Your task to perform on an android device: Open the stopwatch Image 0: 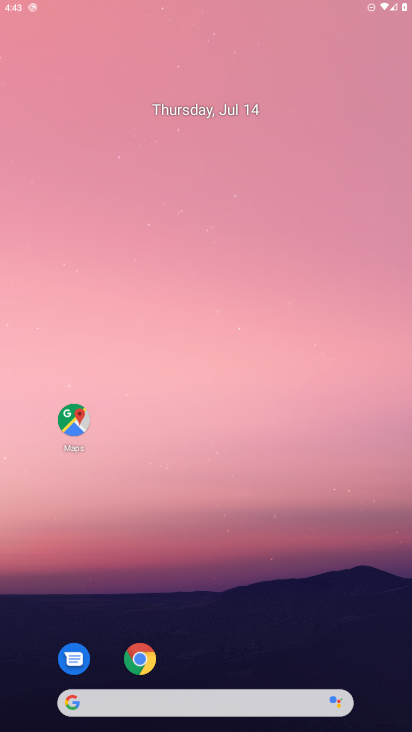
Step 0: press home button
Your task to perform on an android device: Open the stopwatch Image 1: 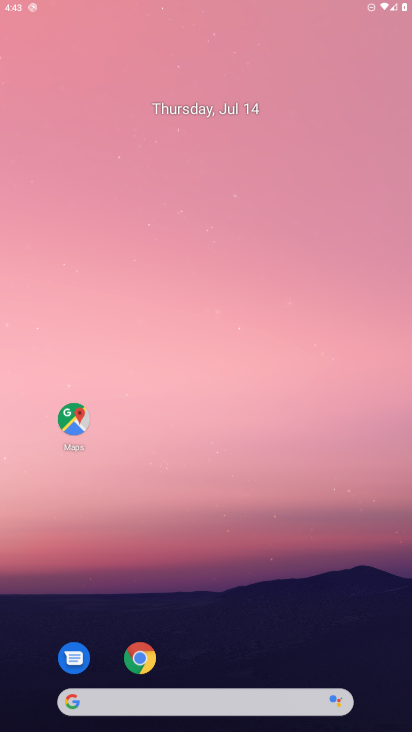
Step 1: drag from (205, 657) to (273, 51)
Your task to perform on an android device: Open the stopwatch Image 2: 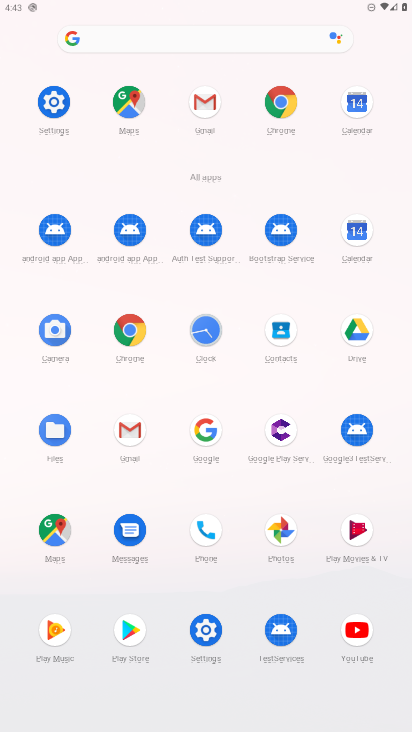
Step 2: click (204, 323)
Your task to perform on an android device: Open the stopwatch Image 3: 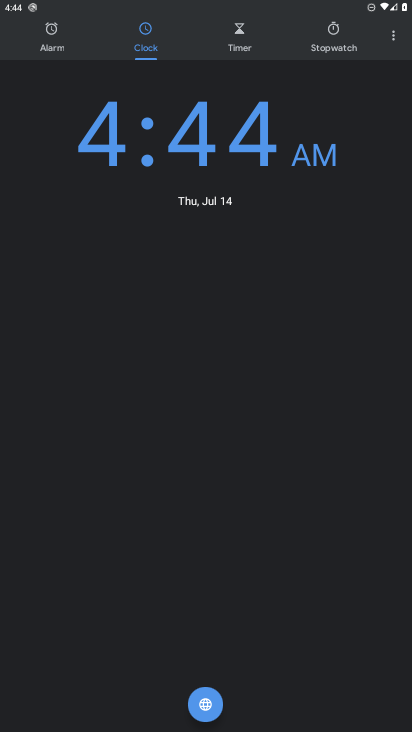
Step 3: click (329, 31)
Your task to perform on an android device: Open the stopwatch Image 4: 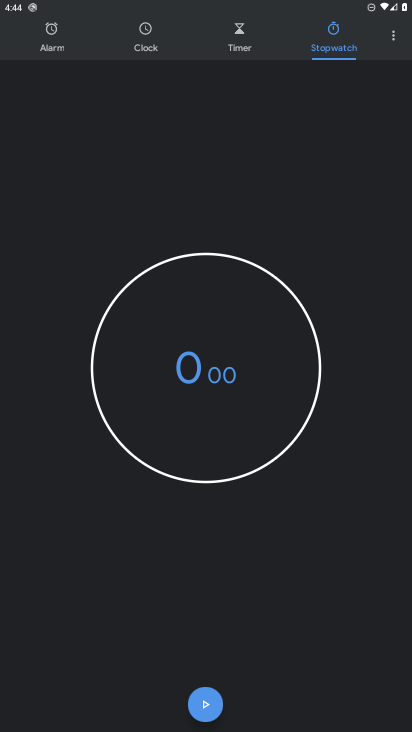
Step 4: click (202, 698)
Your task to perform on an android device: Open the stopwatch Image 5: 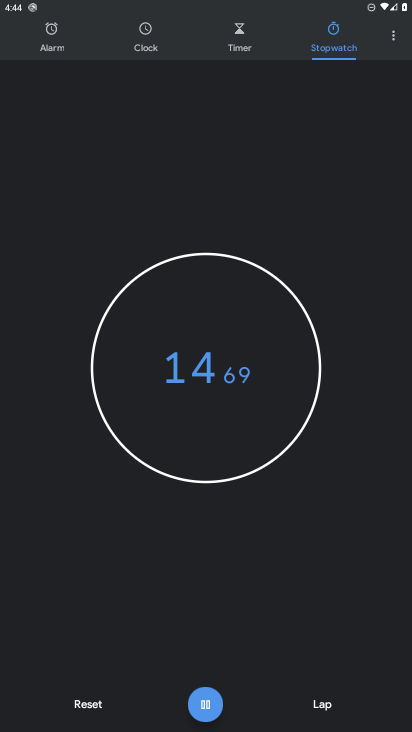
Step 5: click (89, 697)
Your task to perform on an android device: Open the stopwatch Image 6: 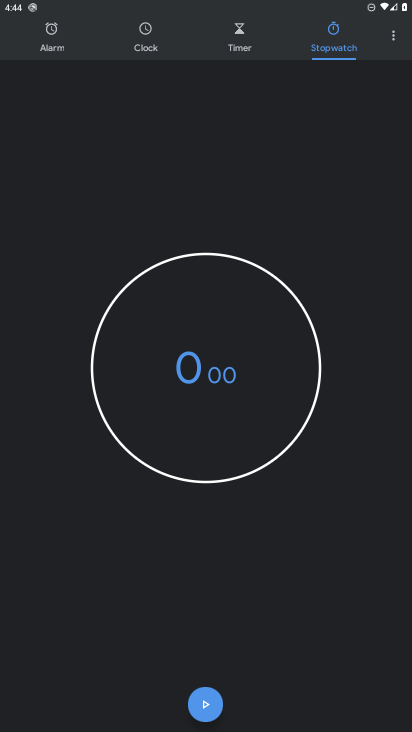
Step 6: task complete